Your task to perform on an android device: open a new tab in the chrome app Image 0: 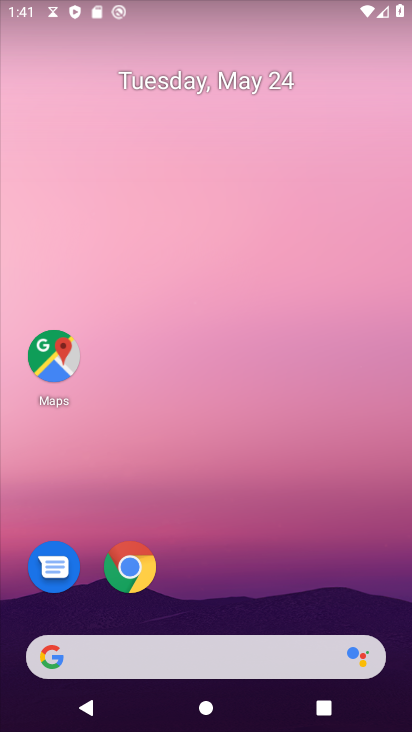
Step 0: click (139, 563)
Your task to perform on an android device: open a new tab in the chrome app Image 1: 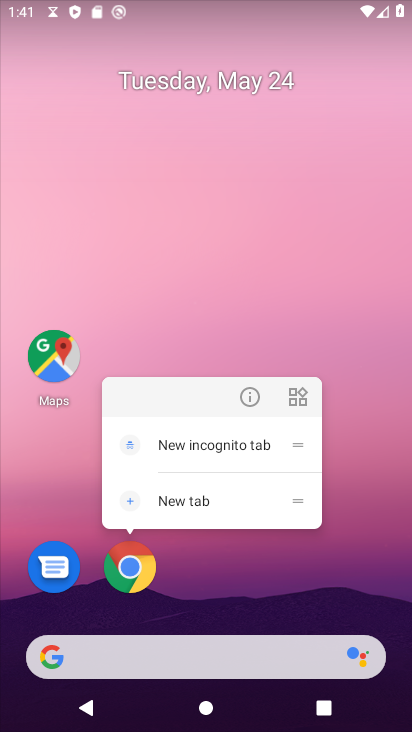
Step 1: click (125, 590)
Your task to perform on an android device: open a new tab in the chrome app Image 2: 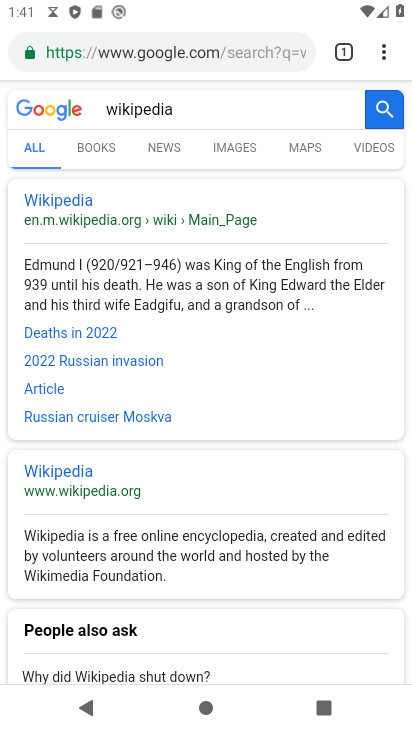
Step 2: click (388, 48)
Your task to perform on an android device: open a new tab in the chrome app Image 3: 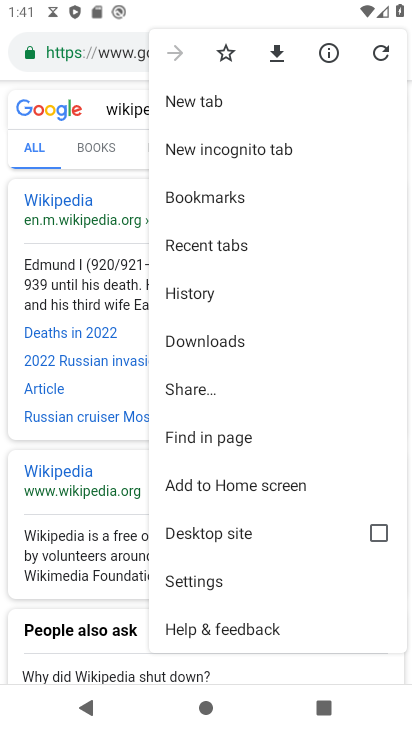
Step 3: click (197, 107)
Your task to perform on an android device: open a new tab in the chrome app Image 4: 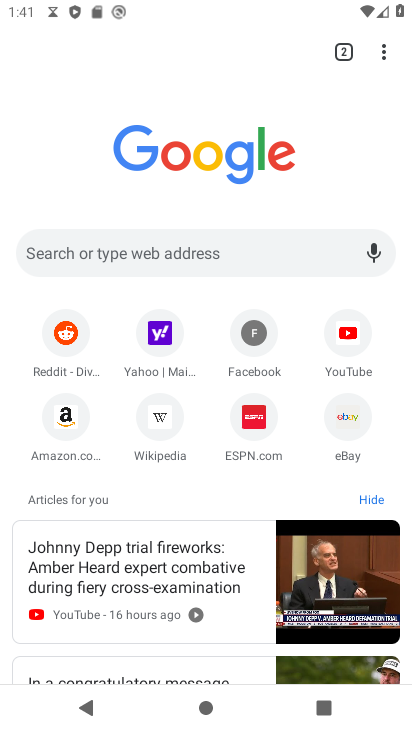
Step 4: task complete